Your task to perform on an android device: toggle pop-ups in chrome Image 0: 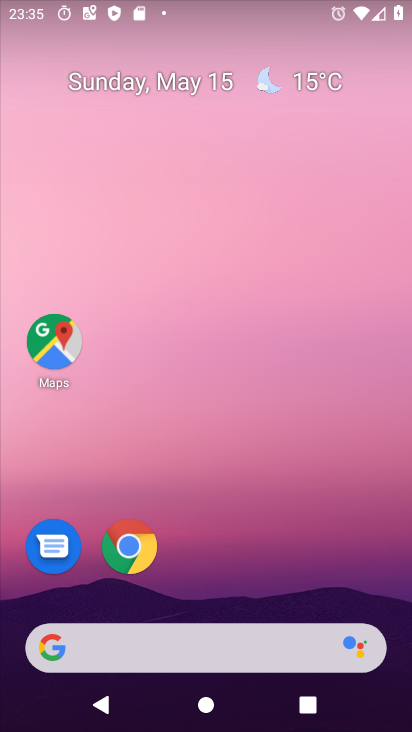
Step 0: drag from (335, 680) to (190, 196)
Your task to perform on an android device: toggle pop-ups in chrome Image 1: 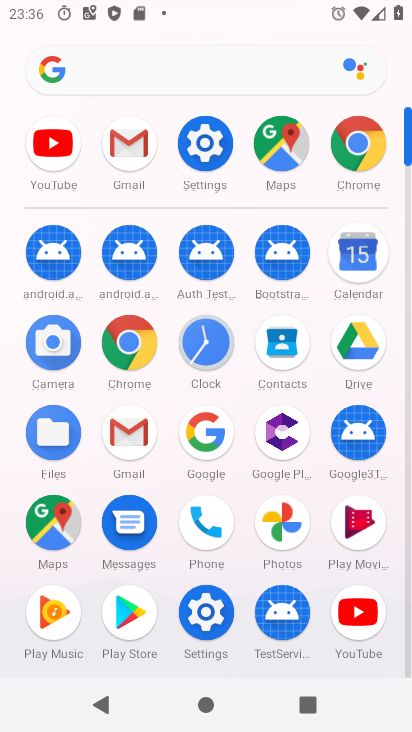
Step 1: click (358, 147)
Your task to perform on an android device: toggle pop-ups in chrome Image 2: 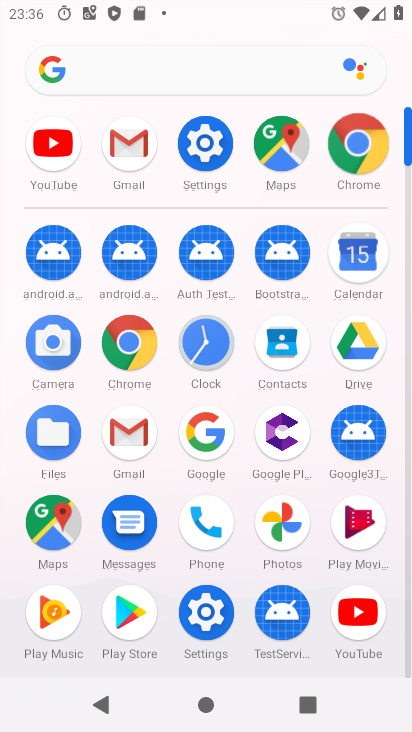
Step 2: click (359, 147)
Your task to perform on an android device: toggle pop-ups in chrome Image 3: 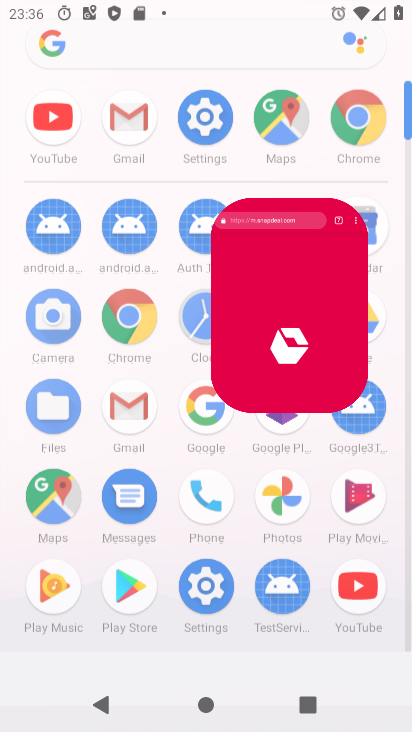
Step 3: click (359, 147)
Your task to perform on an android device: toggle pop-ups in chrome Image 4: 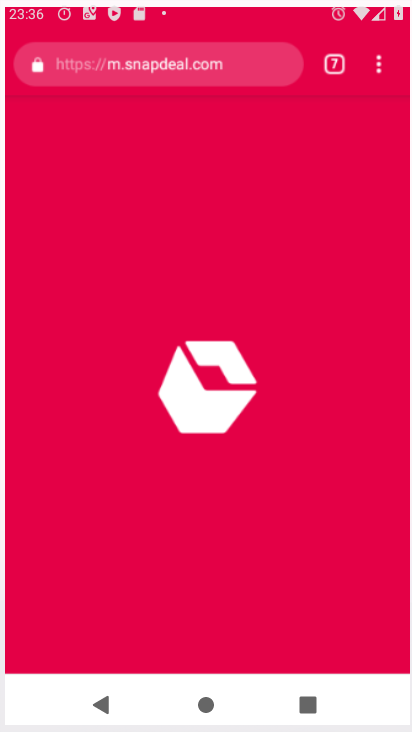
Step 4: click (367, 159)
Your task to perform on an android device: toggle pop-ups in chrome Image 5: 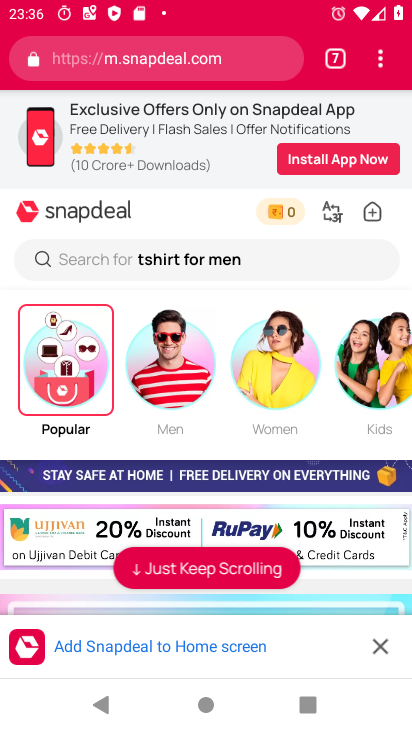
Step 5: click (375, 58)
Your task to perform on an android device: toggle pop-ups in chrome Image 6: 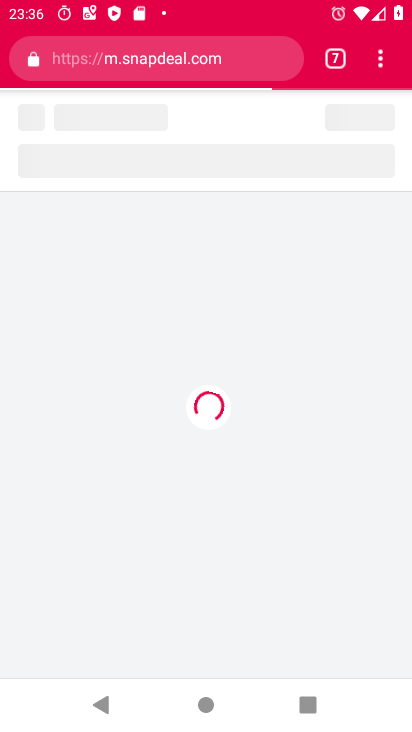
Step 6: click (378, 57)
Your task to perform on an android device: toggle pop-ups in chrome Image 7: 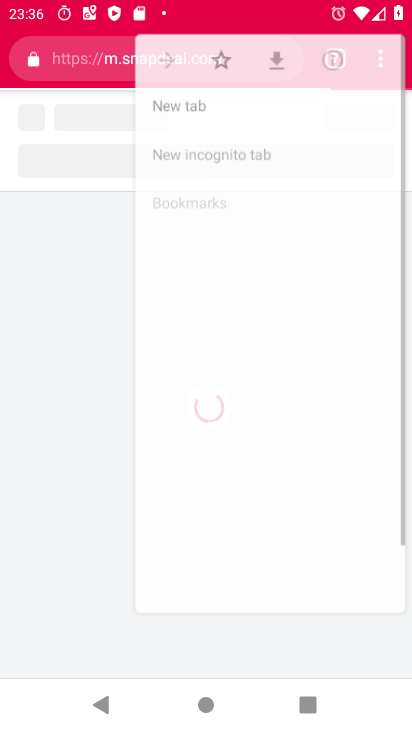
Step 7: click (380, 59)
Your task to perform on an android device: toggle pop-ups in chrome Image 8: 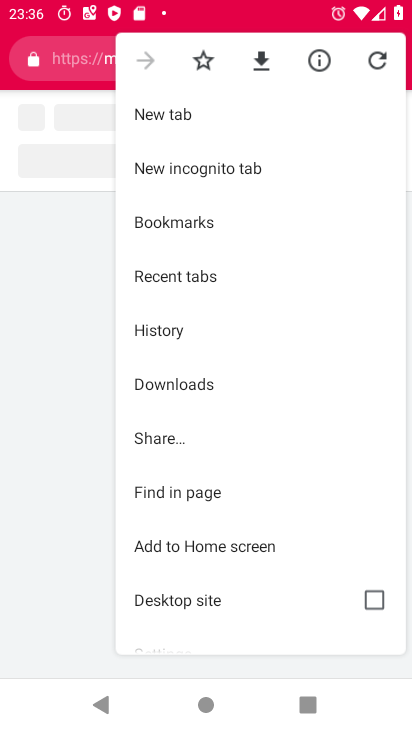
Step 8: click (160, 105)
Your task to perform on an android device: toggle pop-ups in chrome Image 9: 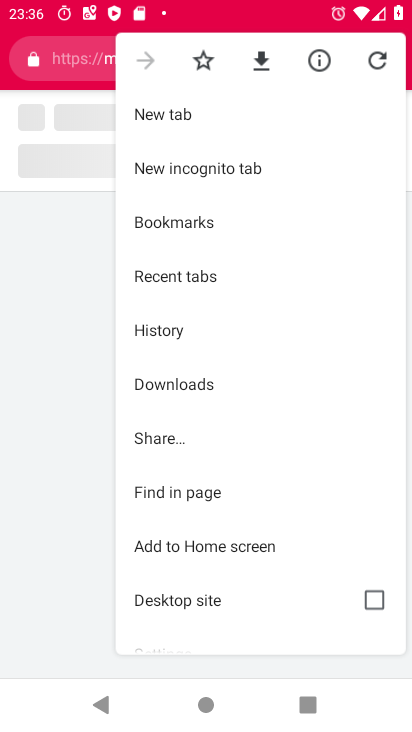
Step 9: drag from (205, 358) to (286, 109)
Your task to perform on an android device: toggle pop-ups in chrome Image 10: 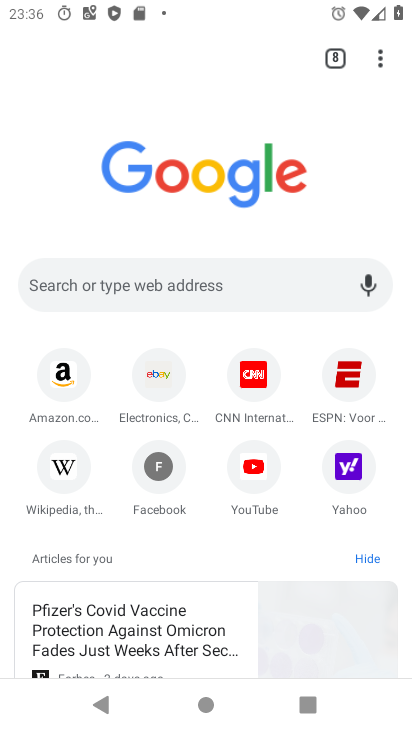
Step 10: drag from (209, 290) to (222, 132)
Your task to perform on an android device: toggle pop-ups in chrome Image 11: 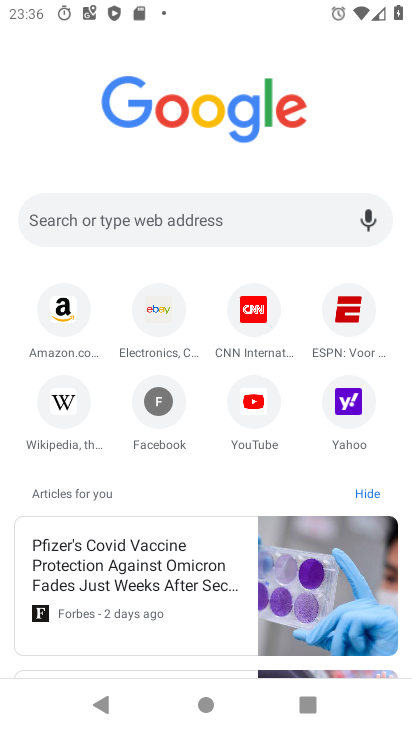
Step 11: drag from (256, 210) to (301, 444)
Your task to perform on an android device: toggle pop-ups in chrome Image 12: 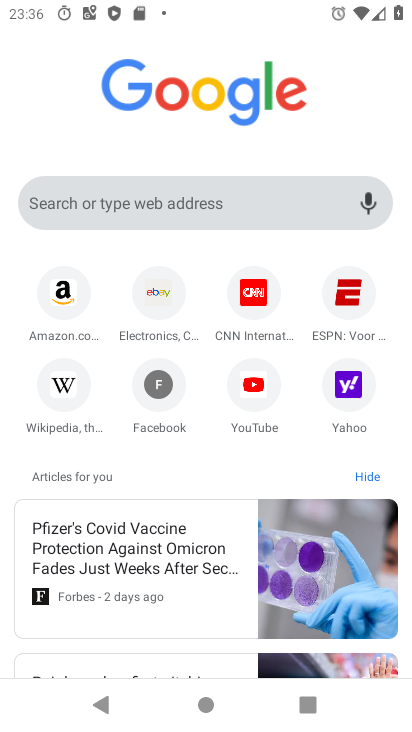
Step 12: drag from (311, 162) to (312, 522)
Your task to perform on an android device: toggle pop-ups in chrome Image 13: 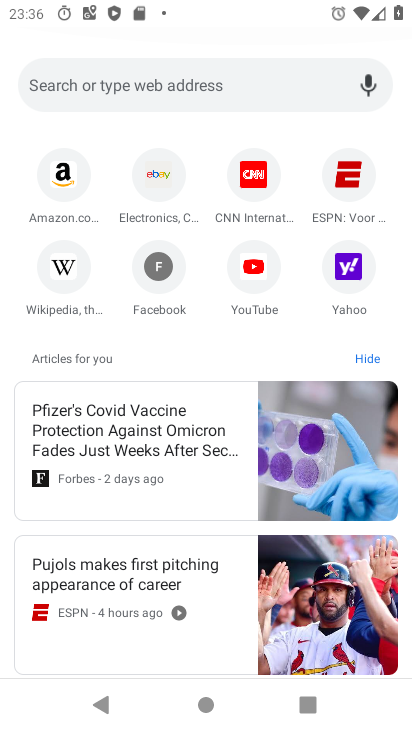
Step 13: drag from (307, 125) to (314, 532)
Your task to perform on an android device: toggle pop-ups in chrome Image 14: 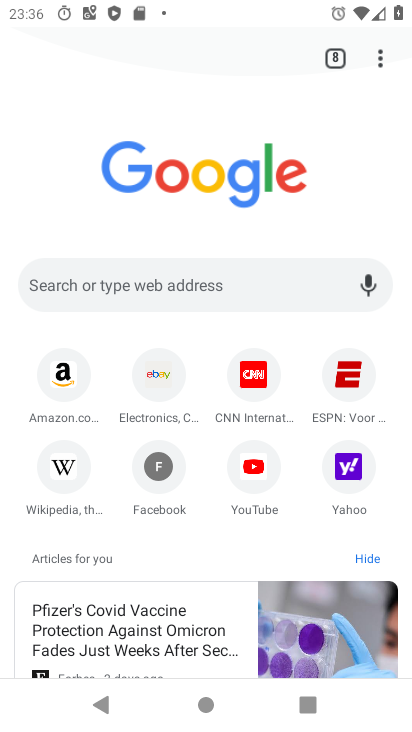
Step 14: drag from (295, 135) to (307, 423)
Your task to perform on an android device: toggle pop-ups in chrome Image 15: 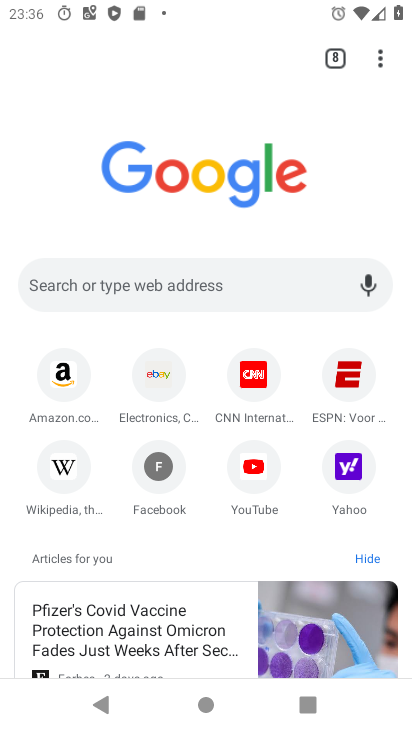
Step 15: click (378, 61)
Your task to perform on an android device: toggle pop-ups in chrome Image 16: 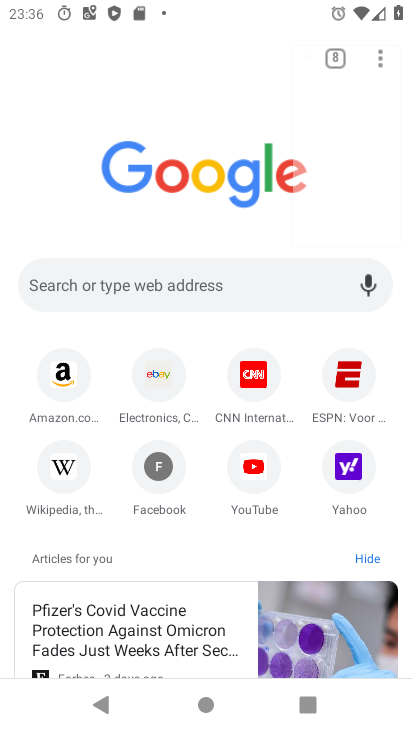
Step 16: click (378, 61)
Your task to perform on an android device: toggle pop-ups in chrome Image 17: 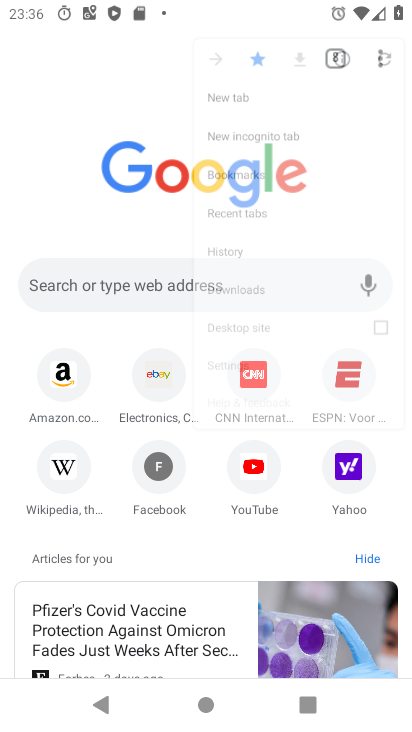
Step 17: click (377, 62)
Your task to perform on an android device: toggle pop-ups in chrome Image 18: 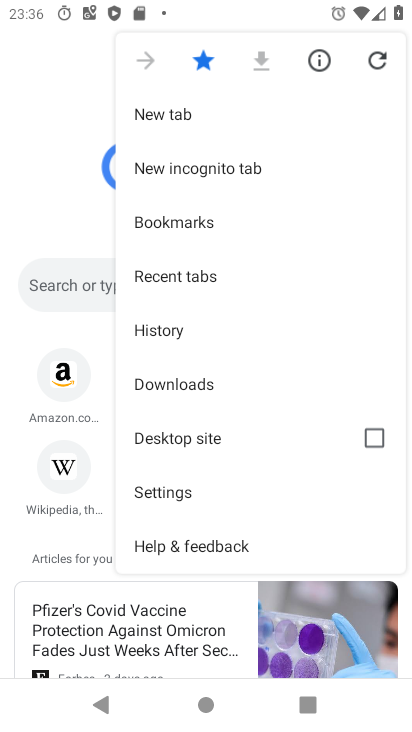
Step 18: click (165, 495)
Your task to perform on an android device: toggle pop-ups in chrome Image 19: 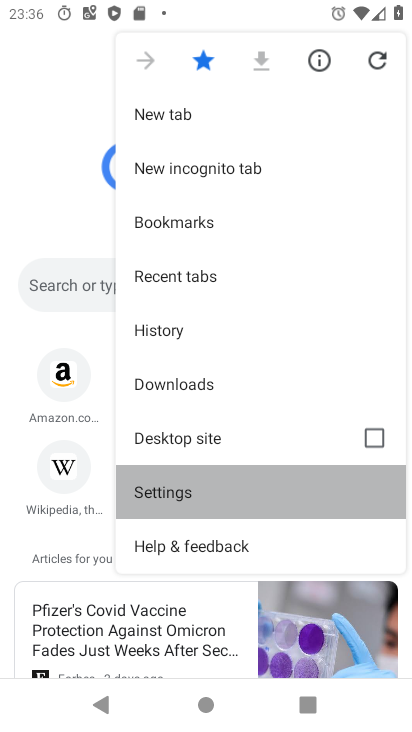
Step 19: click (164, 496)
Your task to perform on an android device: toggle pop-ups in chrome Image 20: 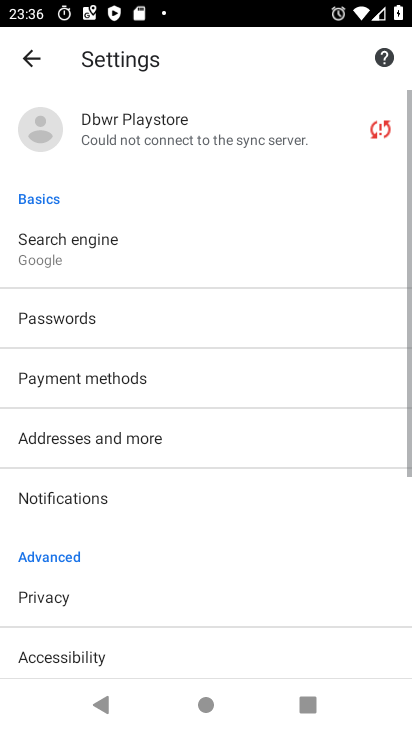
Step 20: drag from (149, 597) to (146, 183)
Your task to perform on an android device: toggle pop-ups in chrome Image 21: 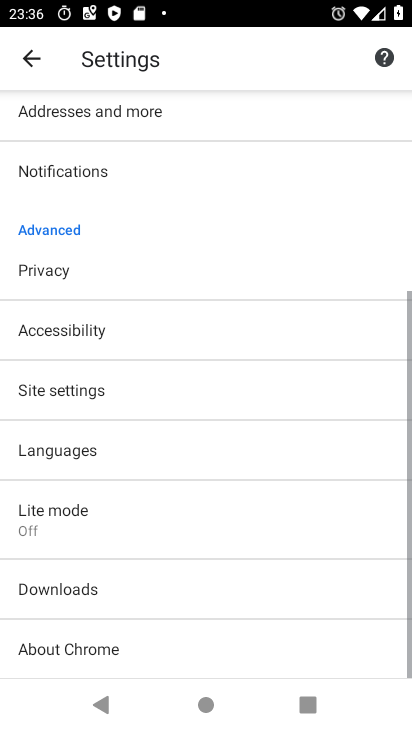
Step 21: drag from (228, 507) to (136, 91)
Your task to perform on an android device: toggle pop-ups in chrome Image 22: 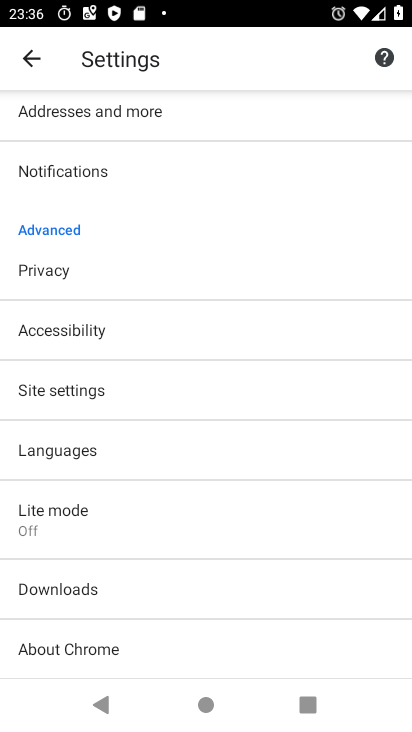
Step 22: click (54, 391)
Your task to perform on an android device: toggle pop-ups in chrome Image 23: 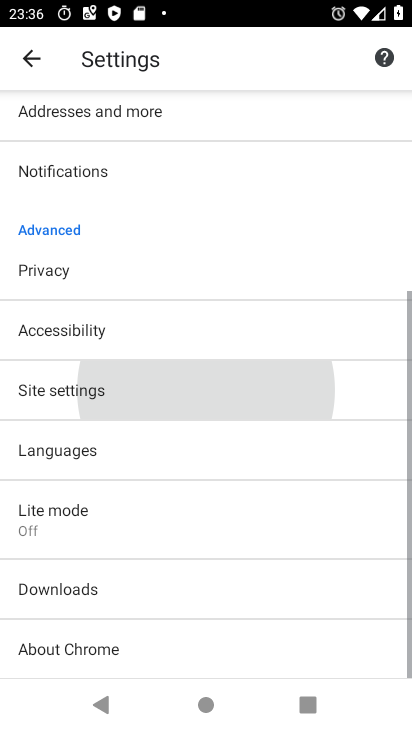
Step 23: click (54, 391)
Your task to perform on an android device: toggle pop-ups in chrome Image 24: 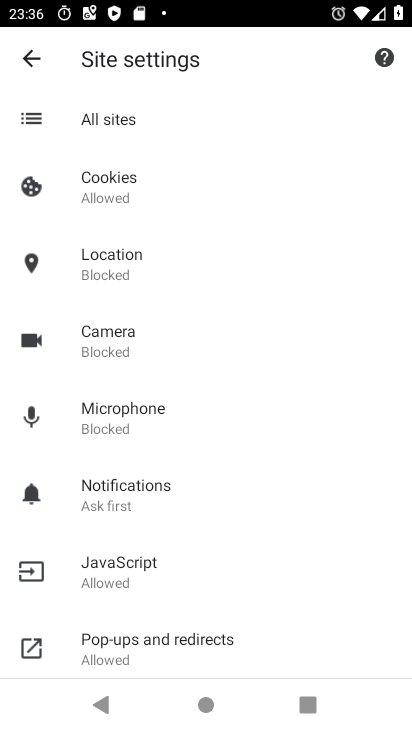
Step 24: drag from (157, 480) to (147, 121)
Your task to perform on an android device: toggle pop-ups in chrome Image 25: 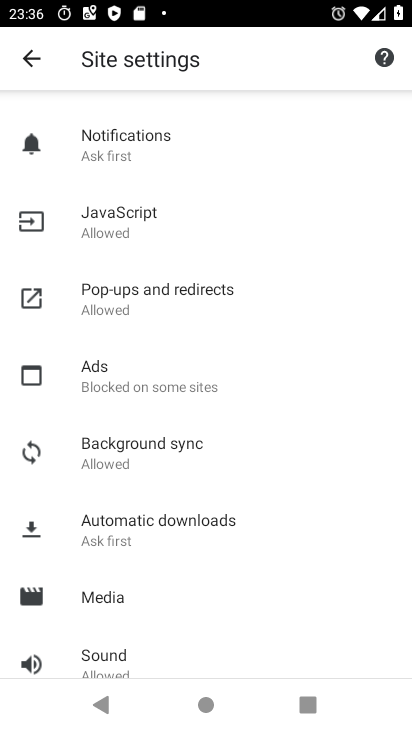
Step 25: click (117, 295)
Your task to perform on an android device: toggle pop-ups in chrome Image 26: 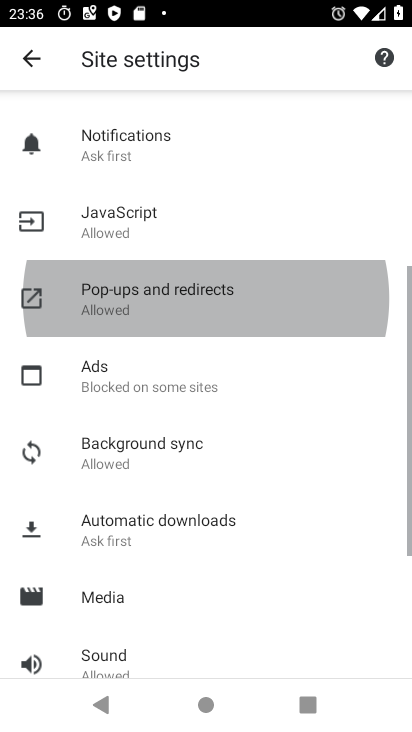
Step 26: click (120, 298)
Your task to perform on an android device: toggle pop-ups in chrome Image 27: 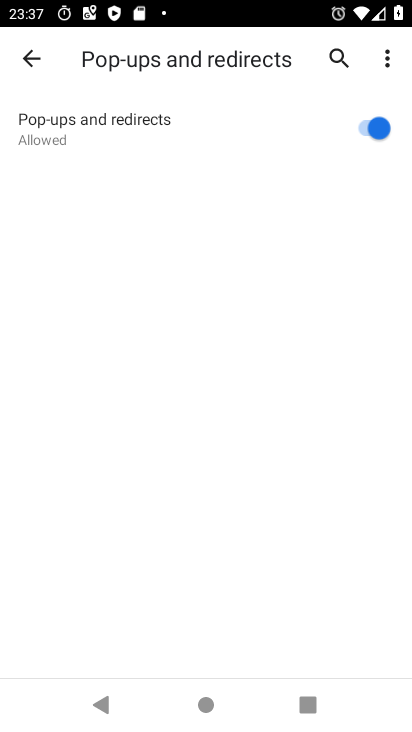
Step 27: task complete